Your task to perform on an android device: Play the latest video from the Huffington Post Image 0: 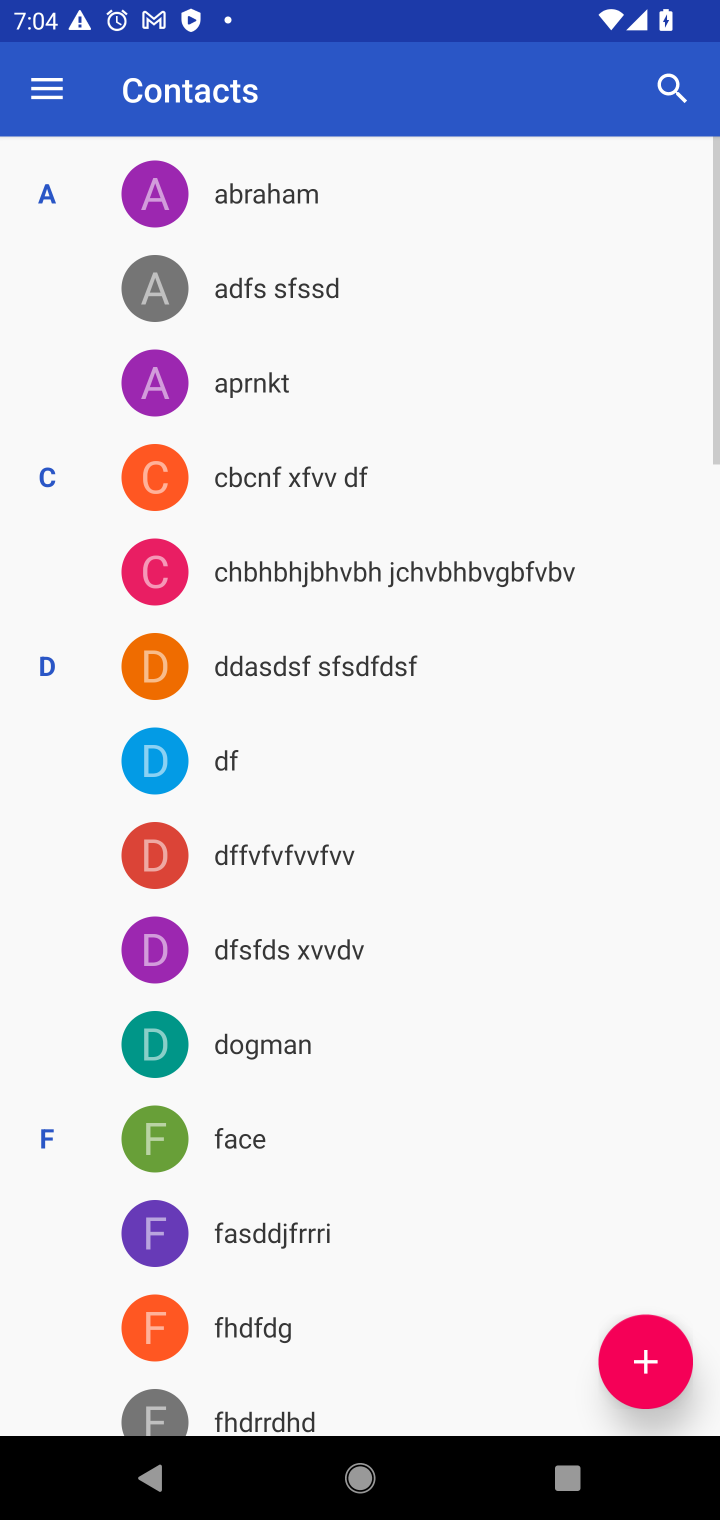
Step 0: press home button
Your task to perform on an android device: Play the latest video from the Huffington Post Image 1: 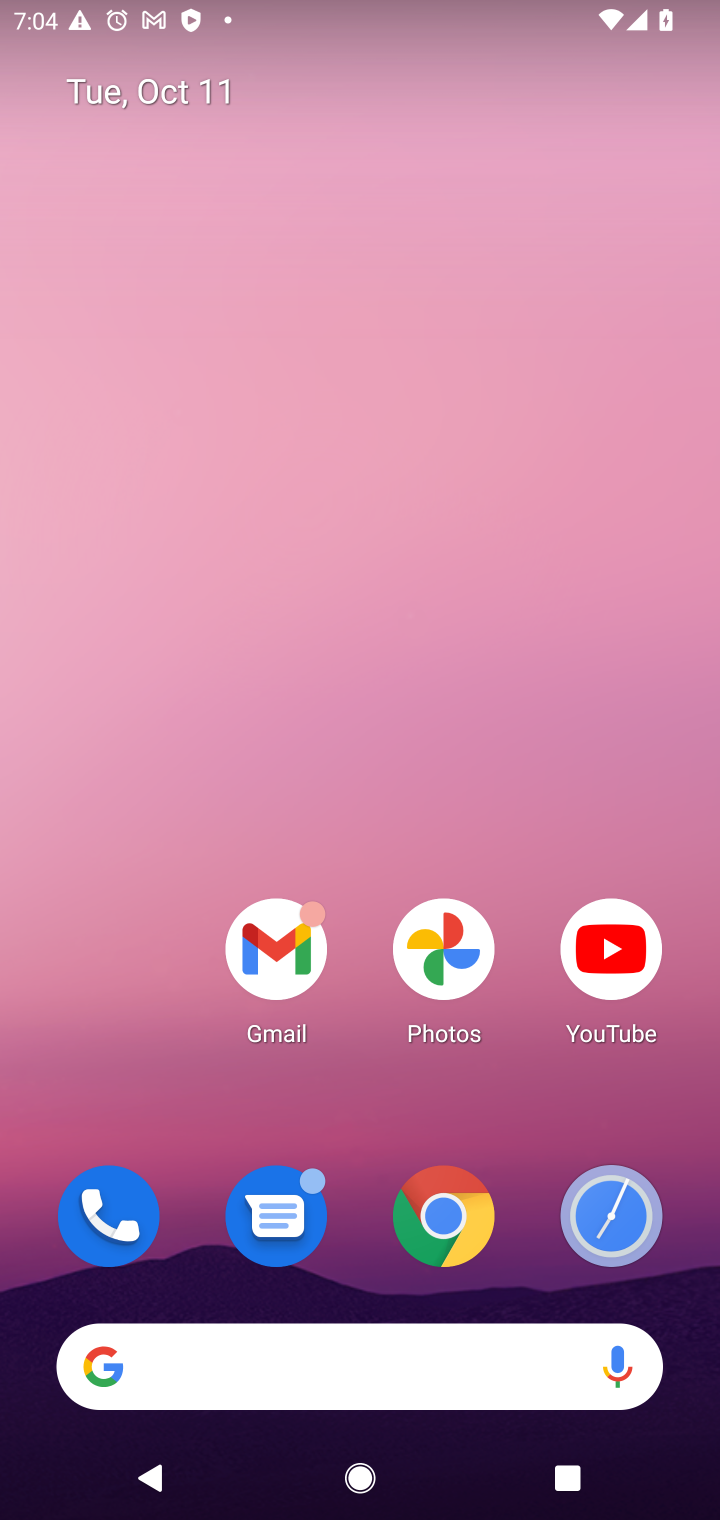
Step 1: click (588, 960)
Your task to perform on an android device: Play the latest video from the Huffington Post Image 2: 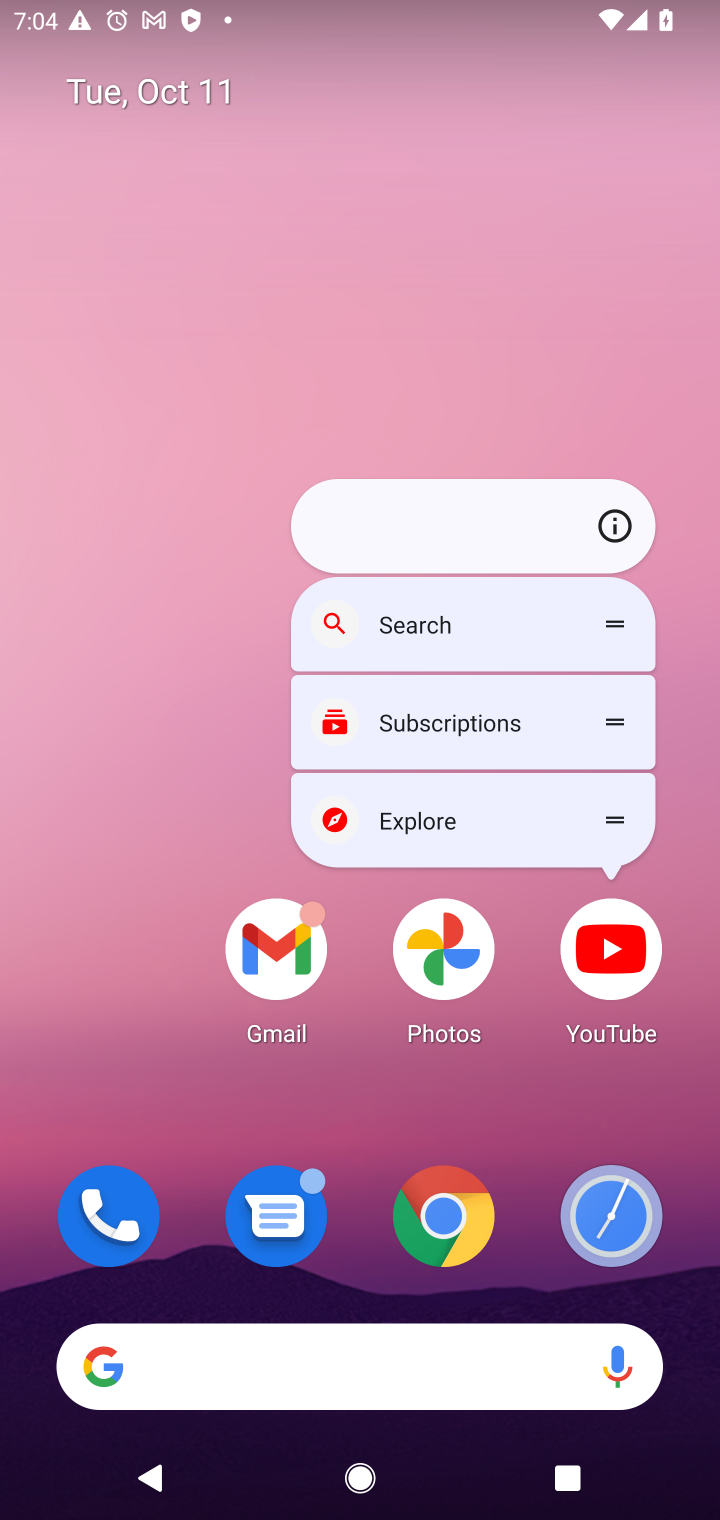
Step 2: click (603, 949)
Your task to perform on an android device: Play the latest video from the Huffington Post Image 3: 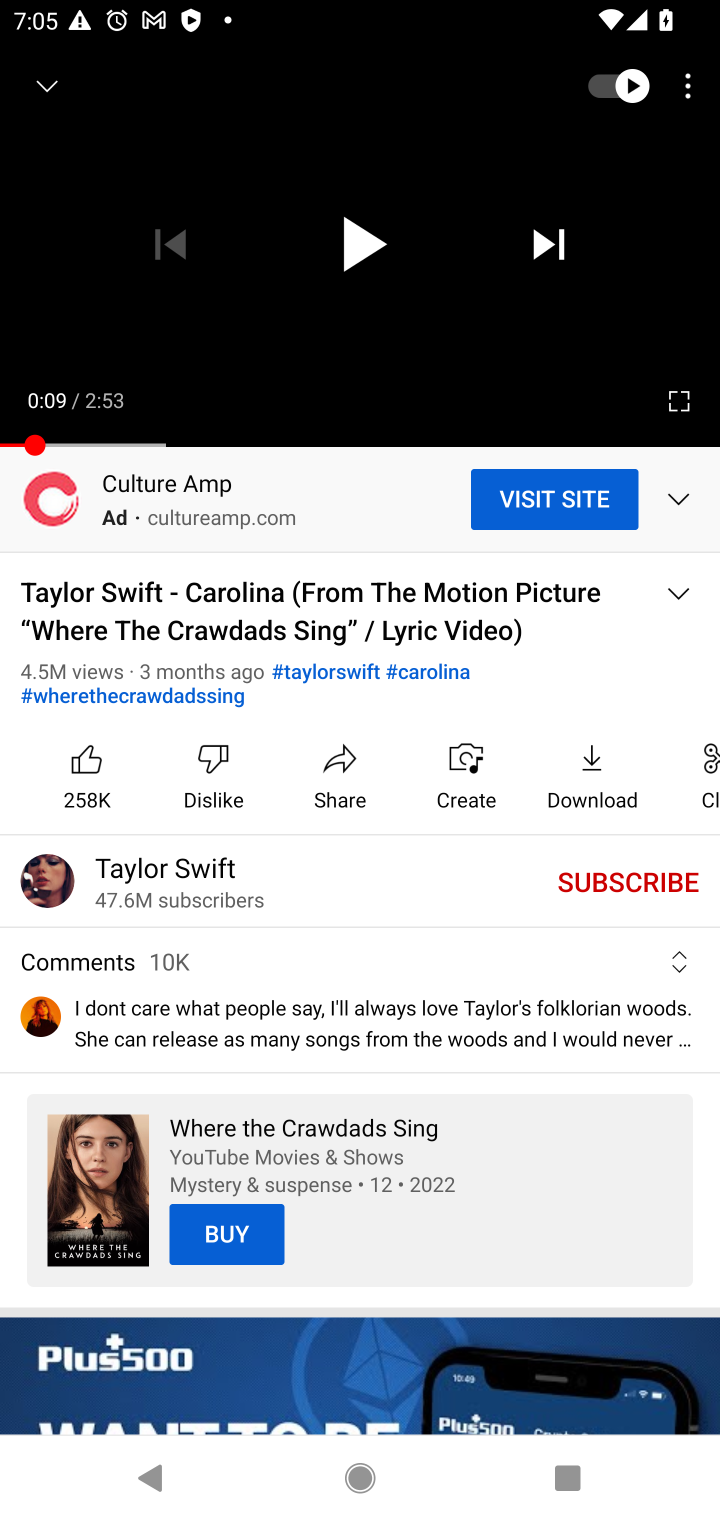
Step 3: click (52, 88)
Your task to perform on an android device: Play the latest video from the Huffington Post Image 4: 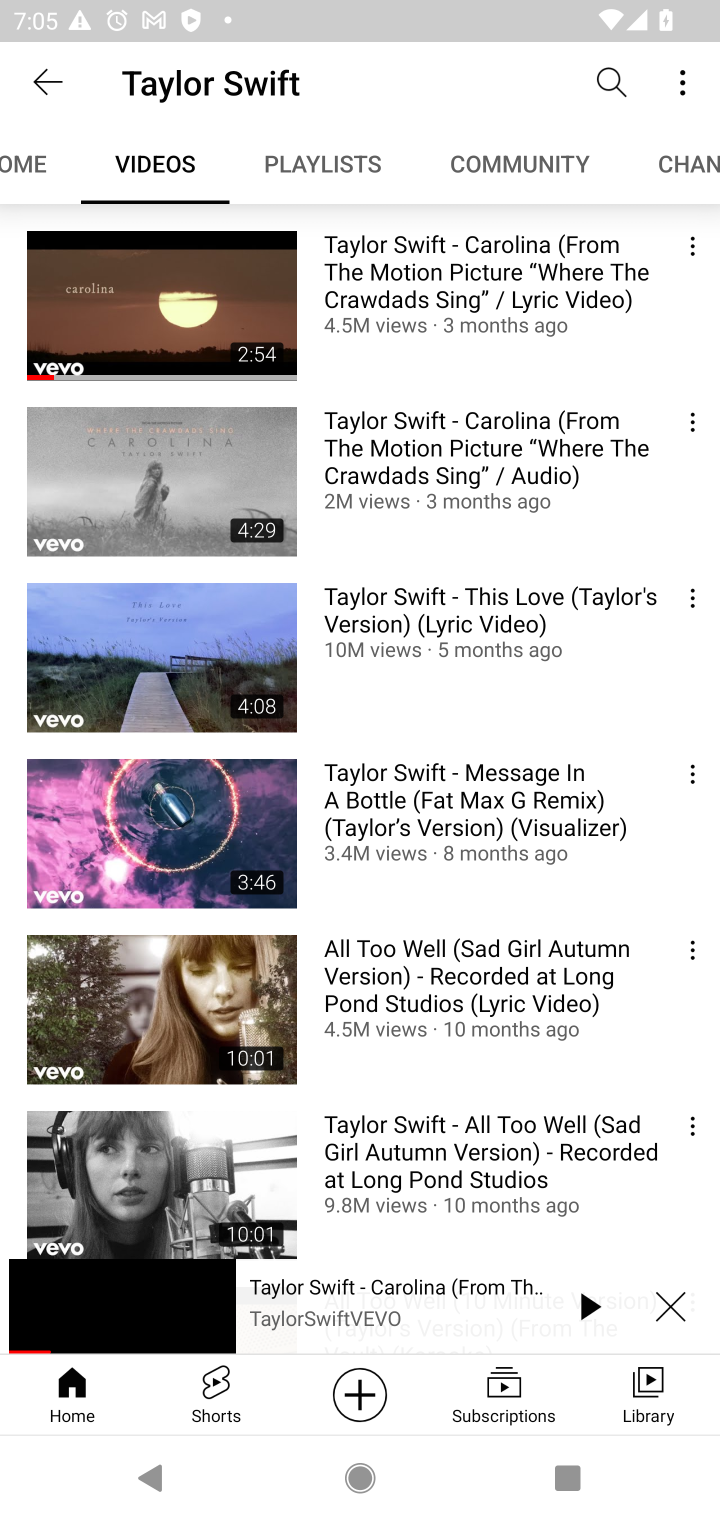
Step 4: click (603, 100)
Your task to perform on an android device: Play the latest video from the Huffington Post Image 5: 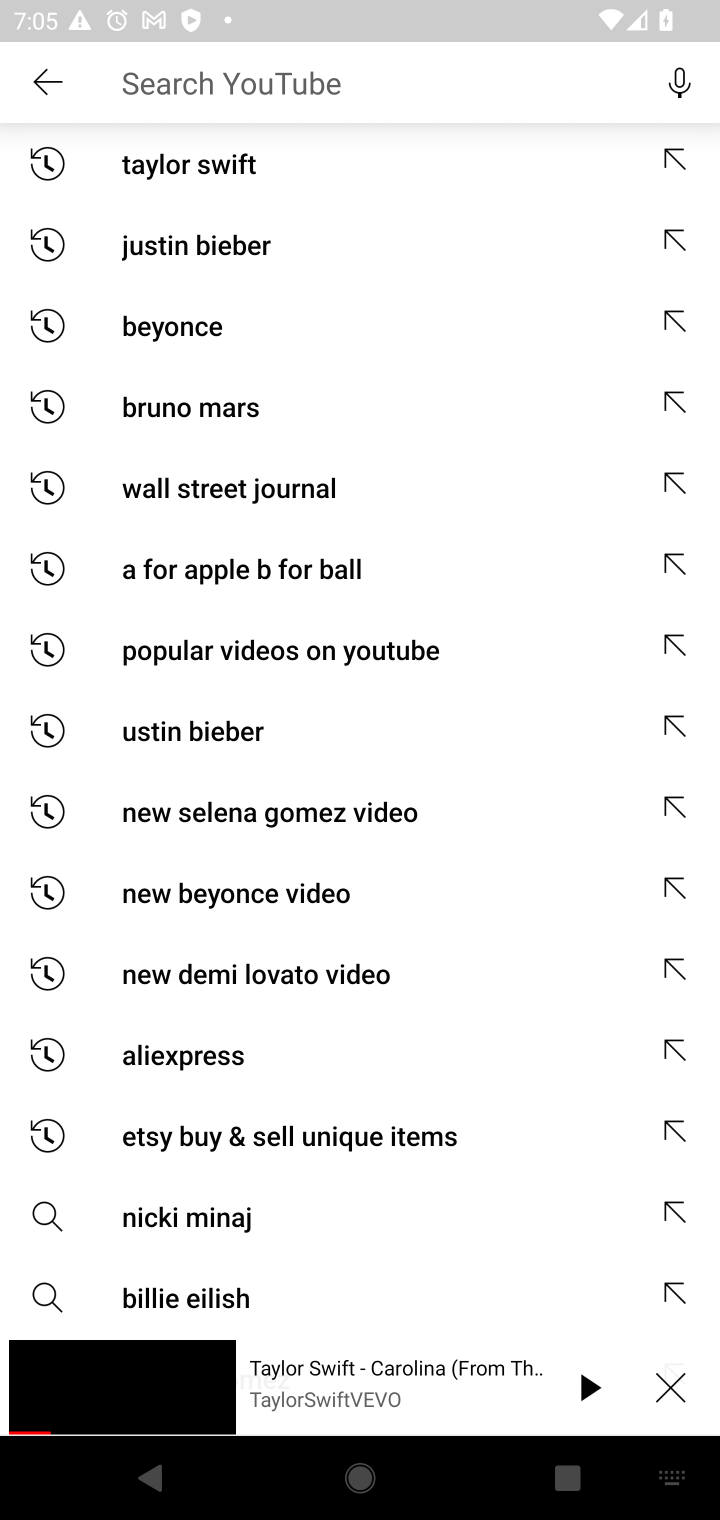
Step 5: type "huffington post"
Your task to perform on an android device: Play the latest video from the Huffington Post Image 6: 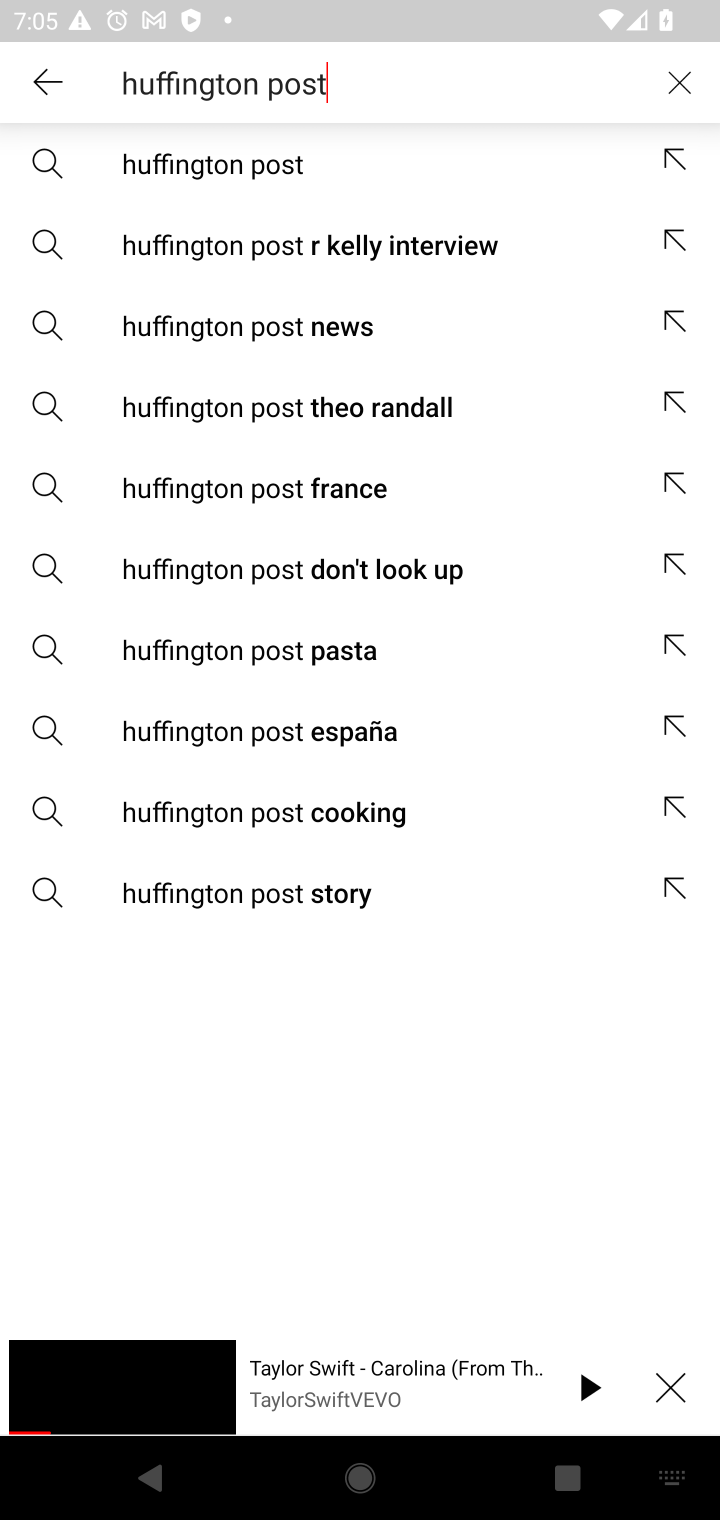
Step 6: press enter
Your task to perform on an android device: Play the latest video from the Huffington Post Image 7: 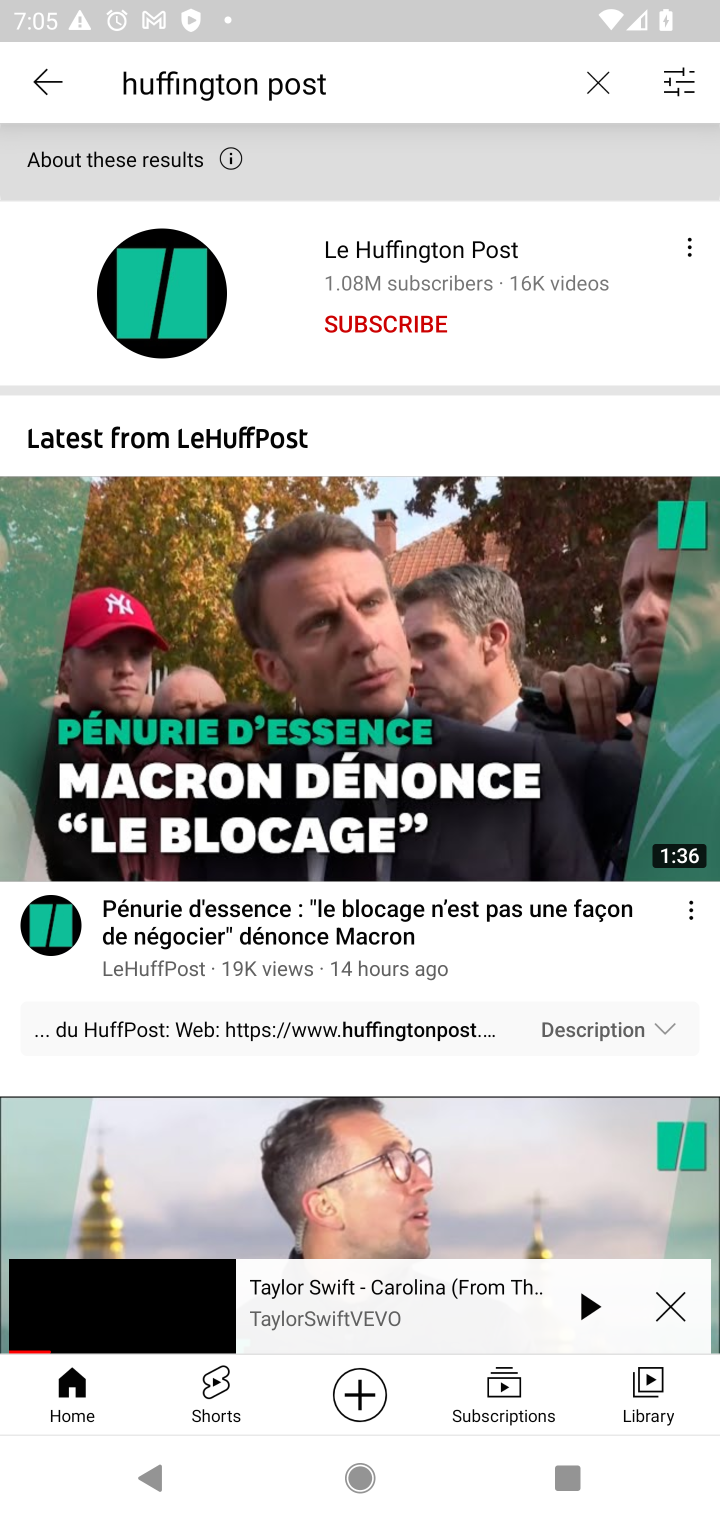
Step 7: click (183, 322)
Your task to perform on an android device: Play the latest video from the Huffington Post Image 8: 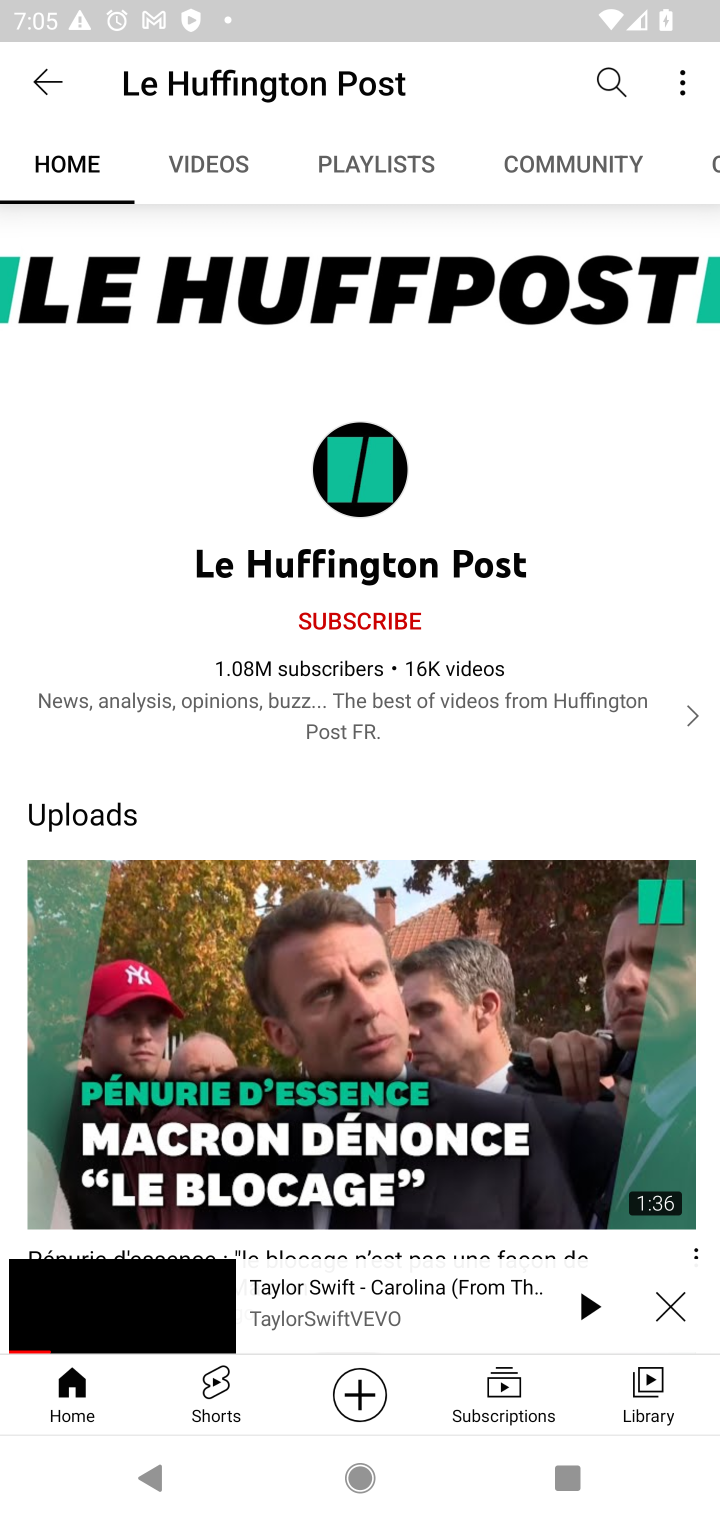
Step 8: click (186, 184)
Your task to perform on an android device: Play the latest video from the Huffington Post Image 9: 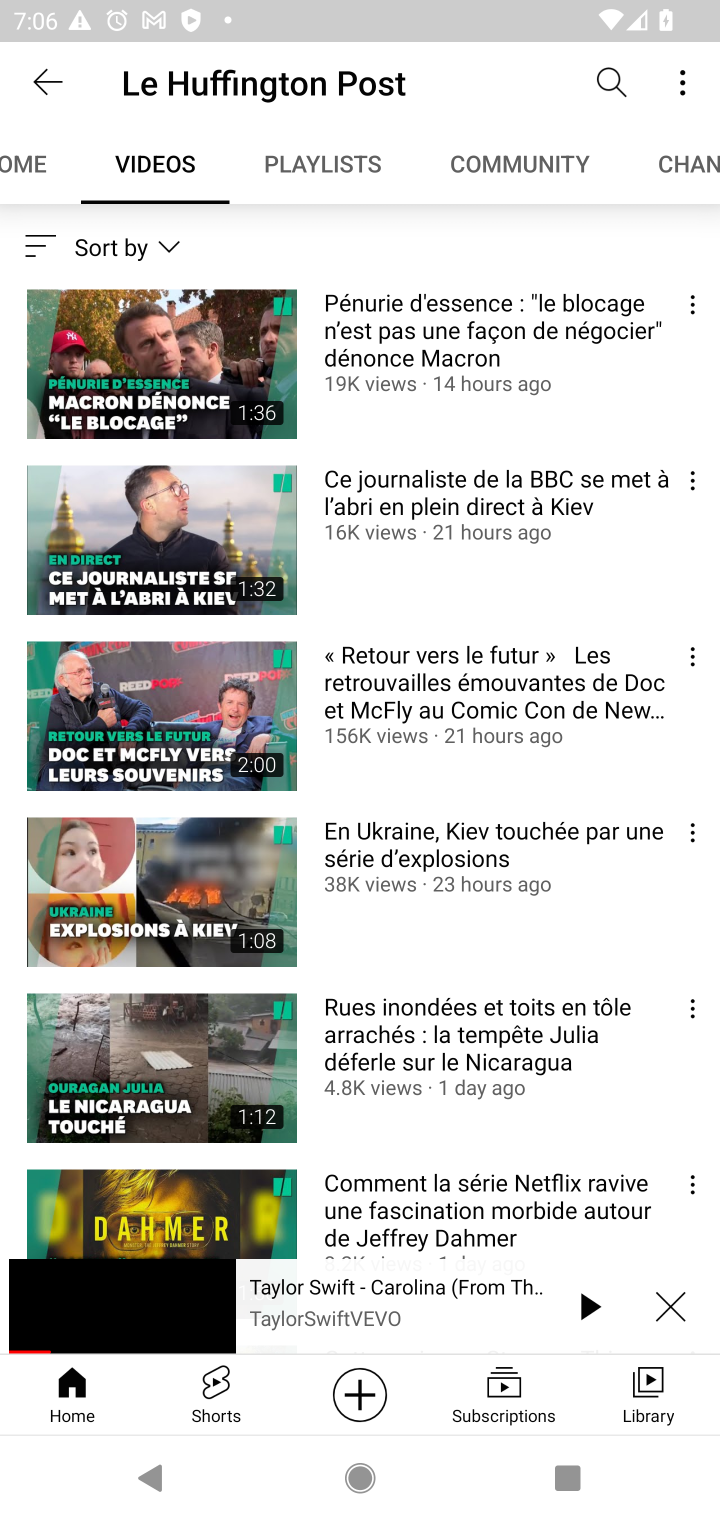
Step 9: click (273, 374)
Your task to perform on an android device: Play the latest video from the Huffington Post Image 10: 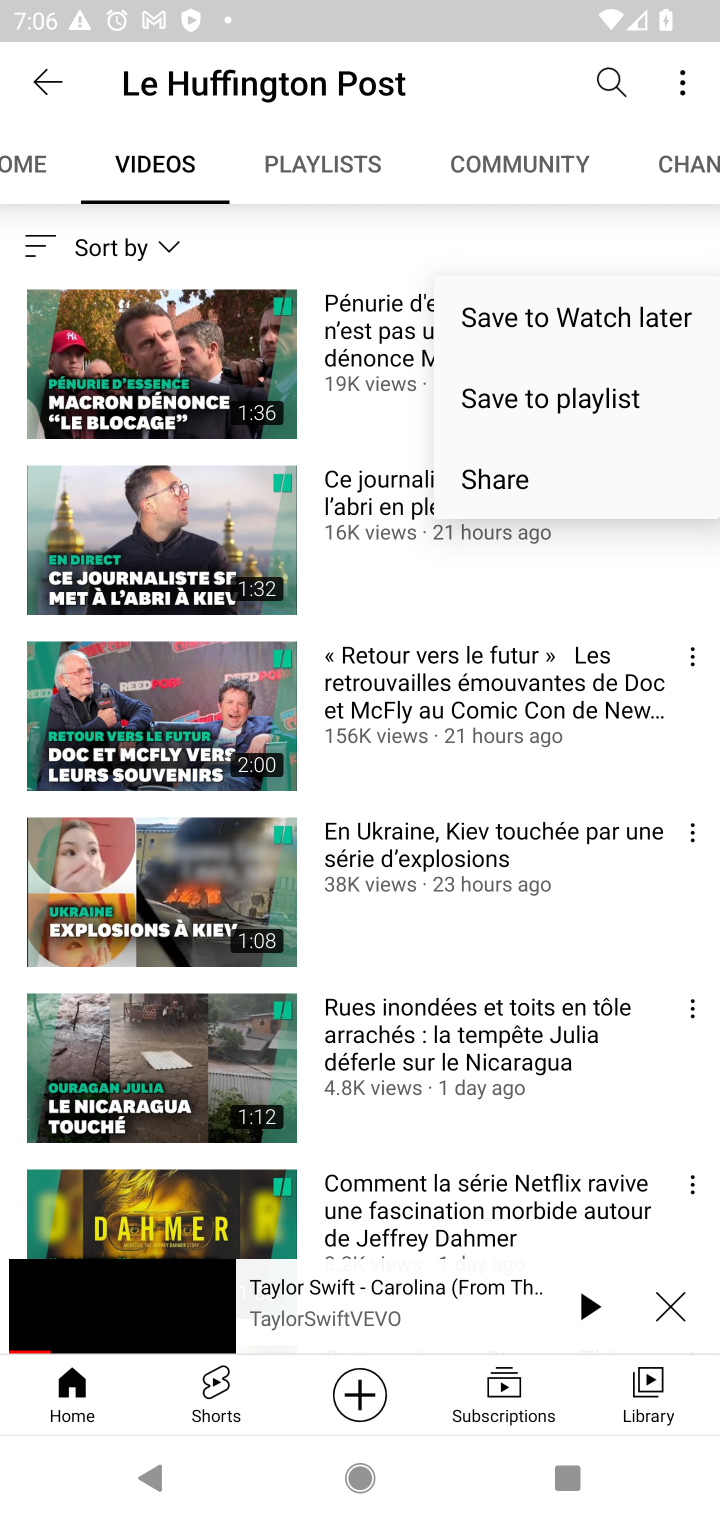
Step 10: click (131, 386)
Your task to perform on an android device: Play the latest video from the Huffington Post Image 11: 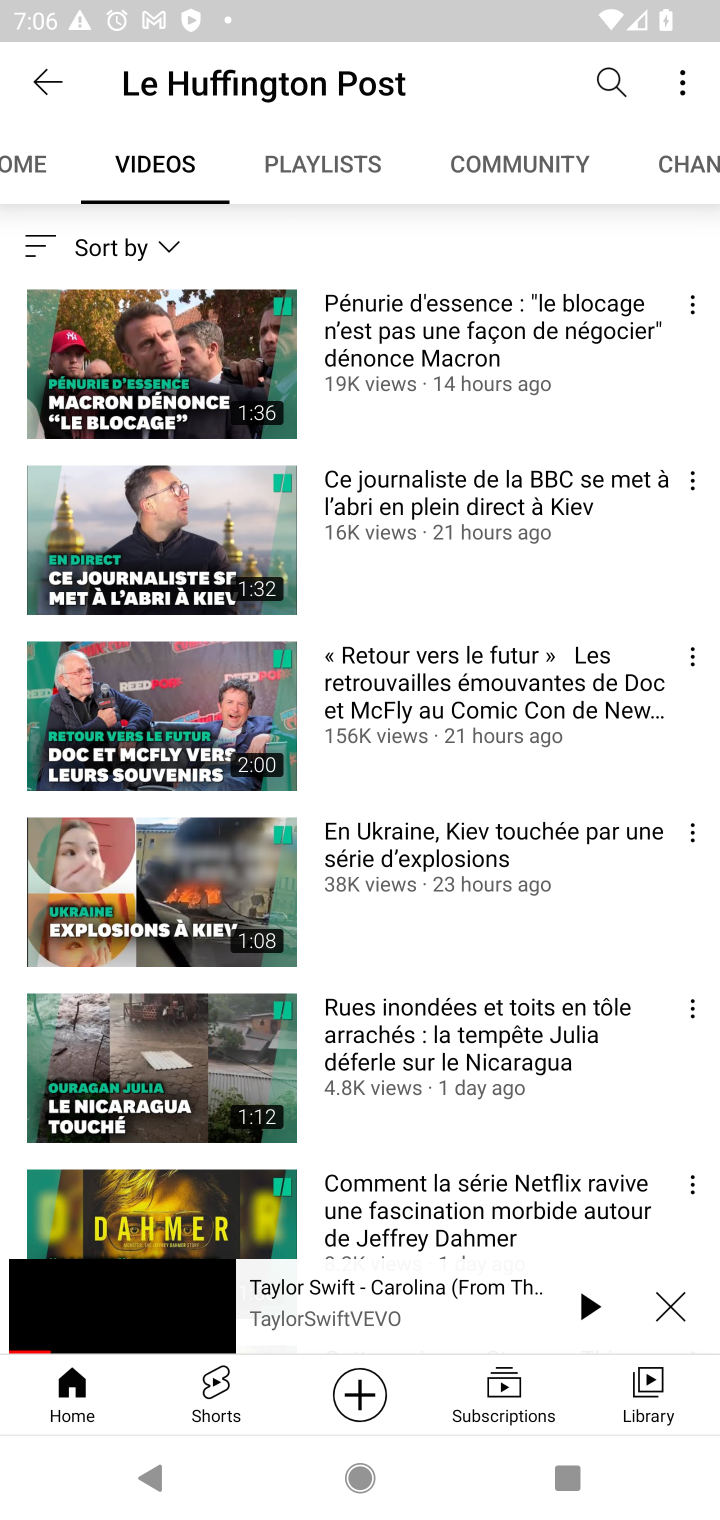
Step 11: click (181, 369)
Your task to perform on an android device: Play the latest video from the Huffington Post Image 12: 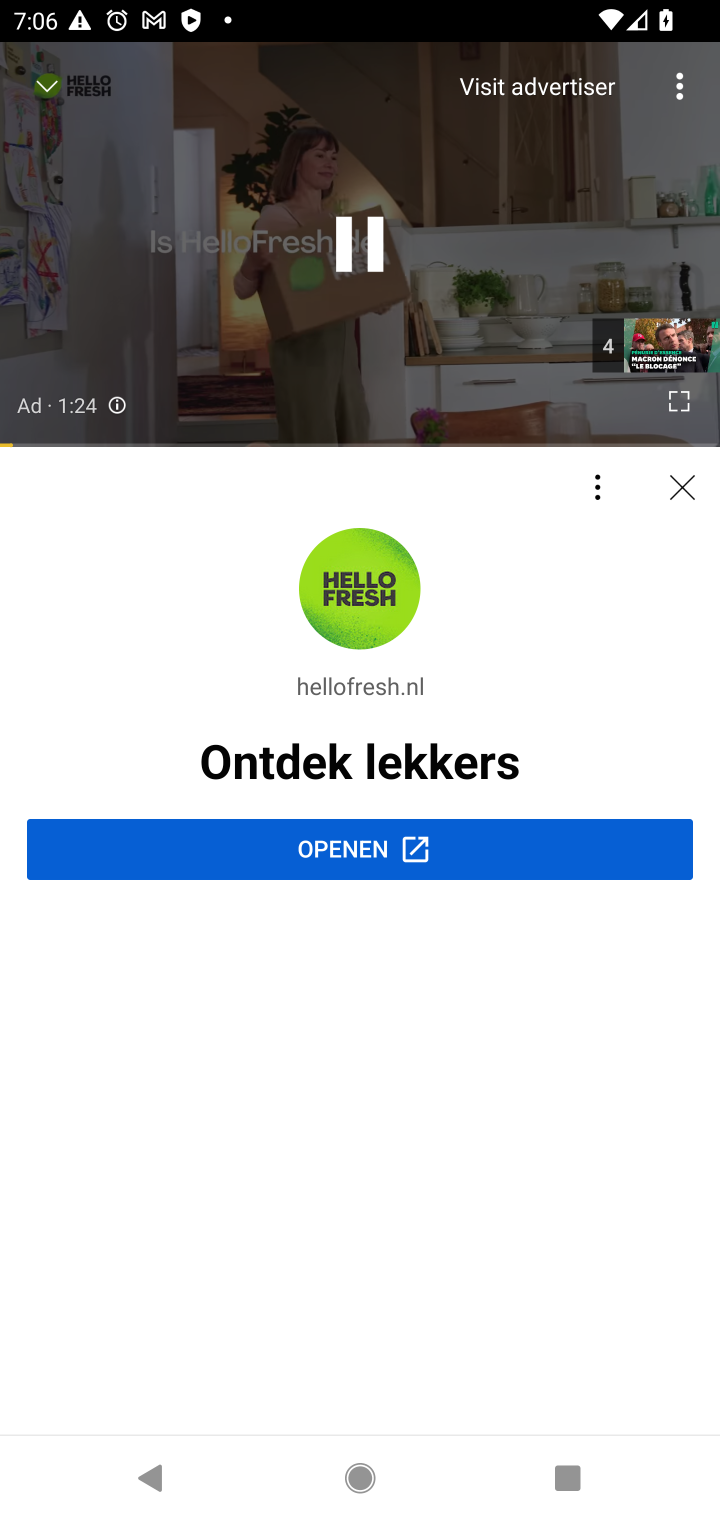
Step 12: task complete